Your task to perform on an android device: delete the emails in spam in the gmail app Image 0: 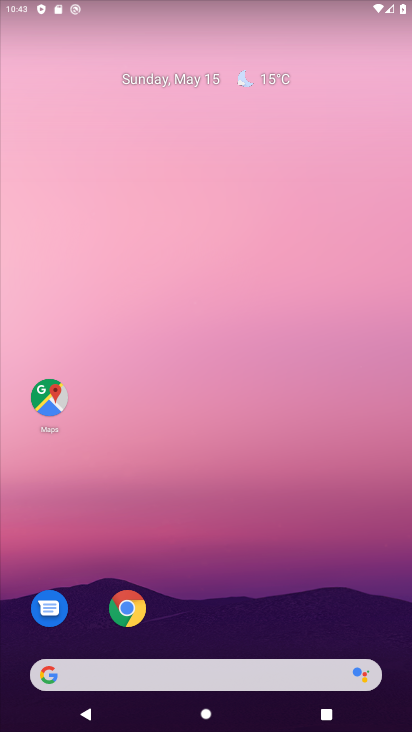
Step 0: drag from (209, 603) to (265, 104)
Your task to perform on an android device: delete the emails in spam in the gmail app Image 1: 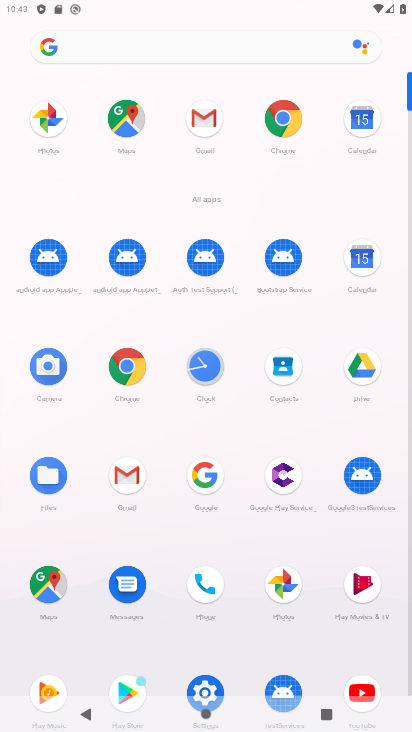
Step 1: click (128, 477)
Your task to perform on an android device: delete the emails in spam in the gmail app Image 2: 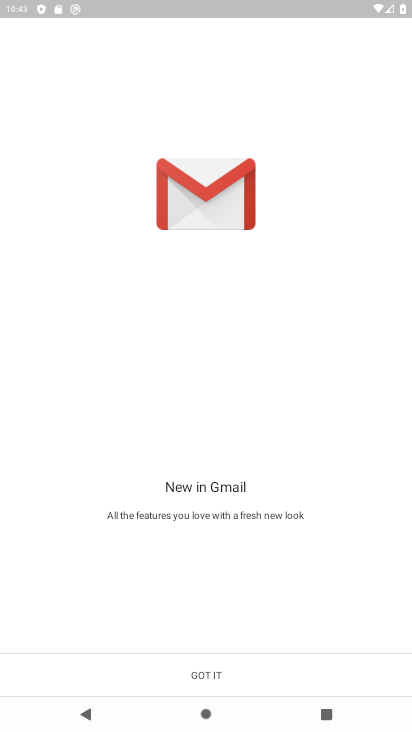
Step 2: click (214, 663)
Your task to perform on an android device: delete the emails in spam in the gmail app Image 3: 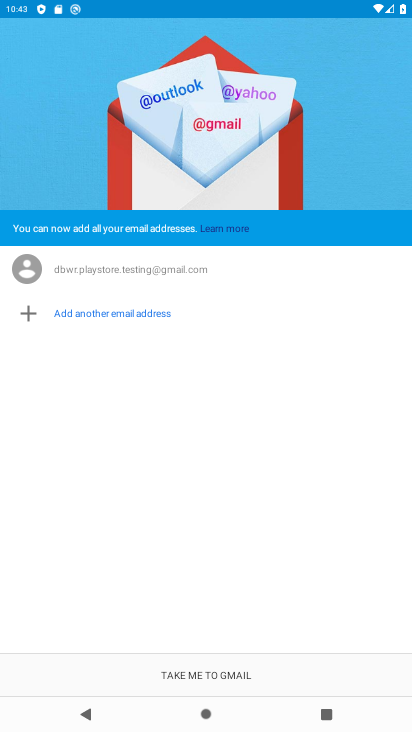
Step 3: click (202, 676)
Your task to perform on an android device: delete the emails in spam in the gmail app Image 4: 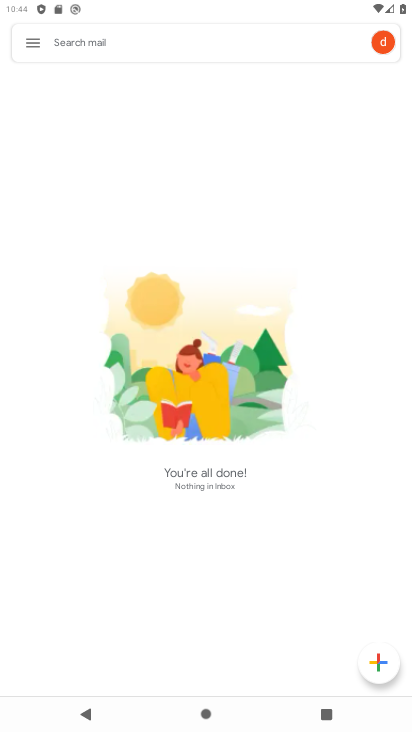
Step 4: click (33, 37)
Your task to perform on an android device: delete the emails in spam in the gmail app Image 5: 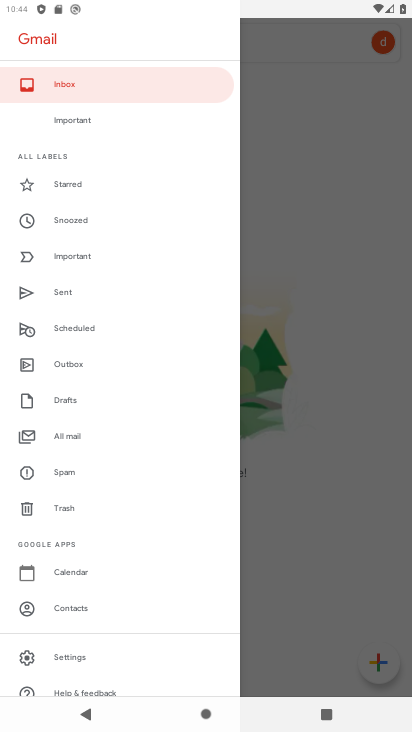
Step 5: click (75, 434)
Your task to perform on an android device: delete the emails in spam in the gmail app Image 6: 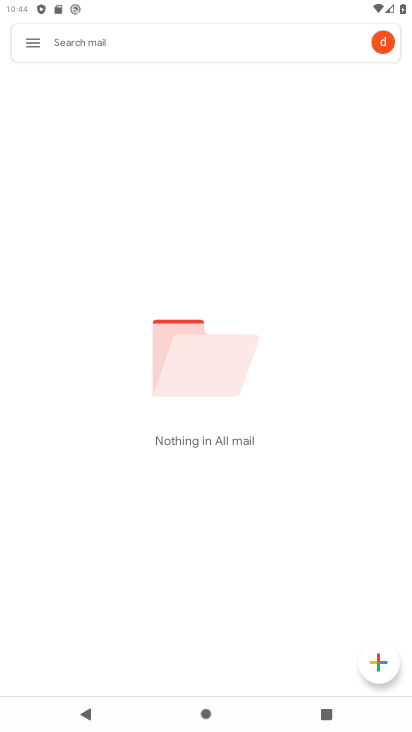
Step 6: click (35, 44)
Your task to perform on an android device: delete the emails in spam in the gmail app Image 7: 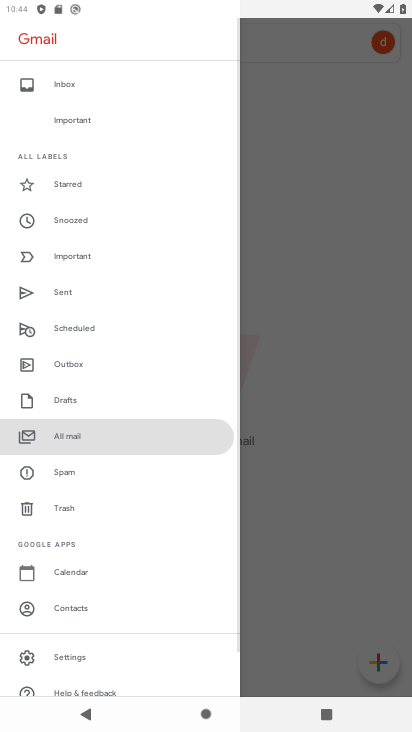
Step 7: click (60, 476)
Your task to perform on an android device: delete the emails in spam in the gmail app Image 8: 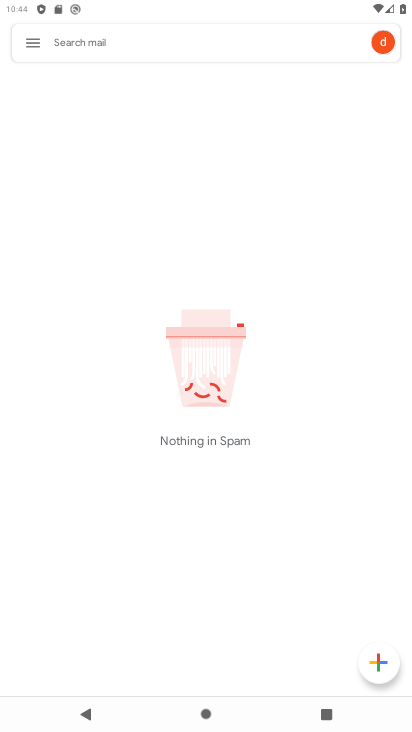
Step 8: task complete